Your task to perform on an android device: toggle location history Image 0: 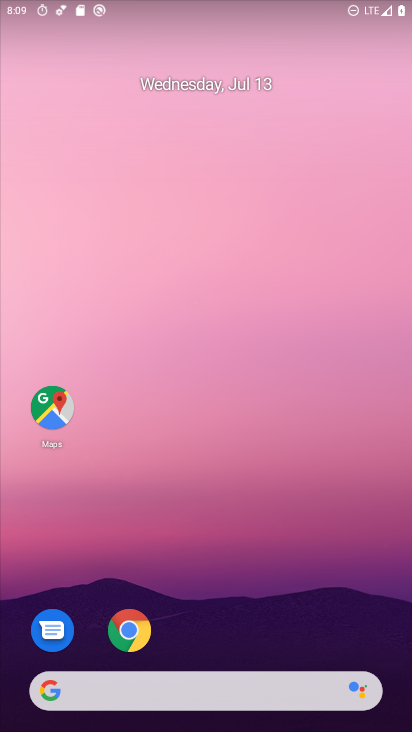
Step 0: drag from (399, 687) to (283, 0)
Your task to perform on an android device: toggle location history Image 1: 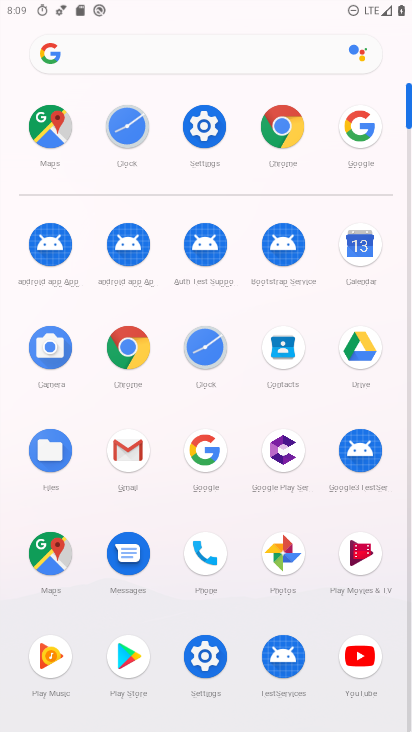
Step 1: click (197, 675)
Your task to perform on an android device: toggle location history Image 2: 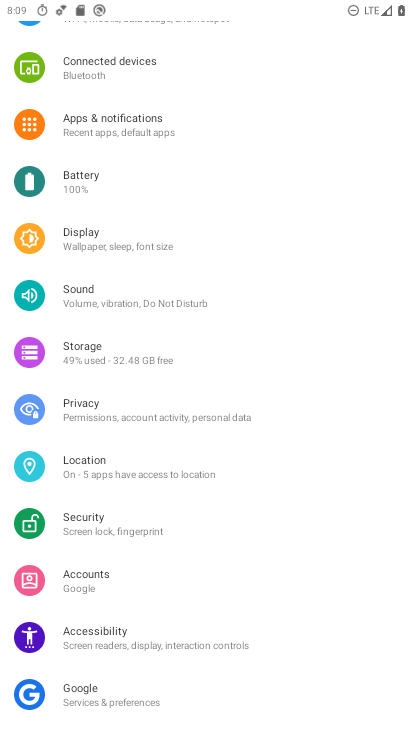
Step 2: click (101, 467)
Your task to perform on an android device: toggle location history Image 3: 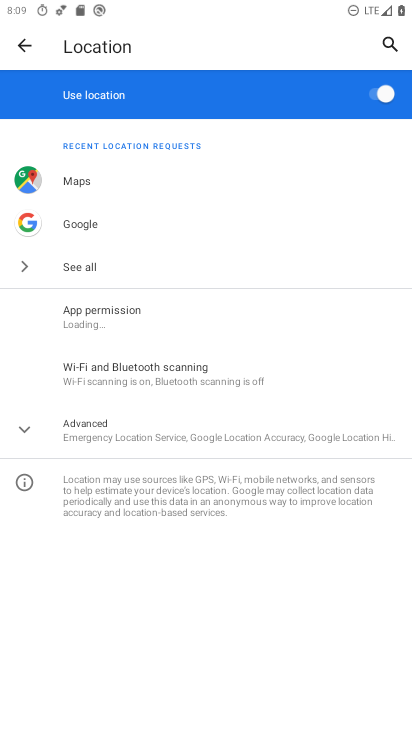
Step 3: click (114, 426)
Your task to perform on an android device: toggle location history Image 4: 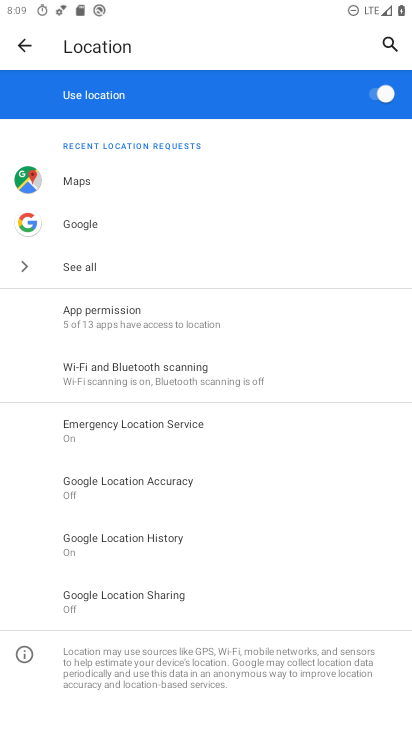
Step 4: click (151, 543)
Your task to perform on an android device: toggle location history Image 5: 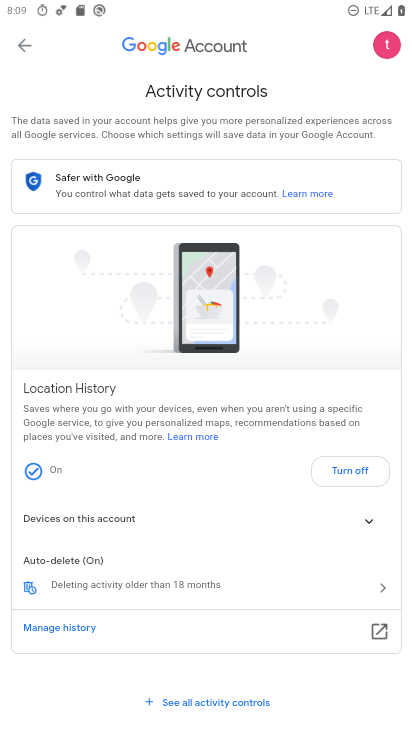
Step 5: click (344, 475)
Your task to perform on an android device: toggle location history Image 6: 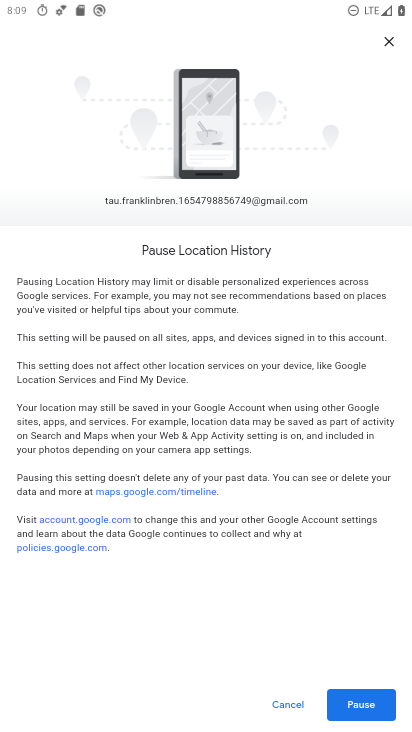
Step 6: task complete